Your task to perform on an android device: Open eBay Image 0: 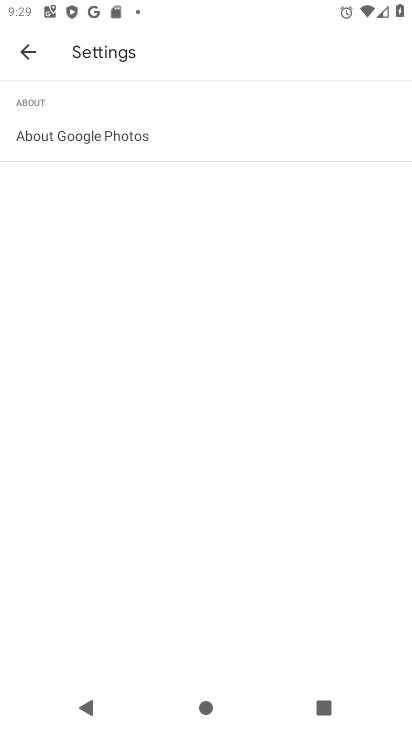
Step 0: press home button
Your task to perform on an android device: Open eBay Image 1: 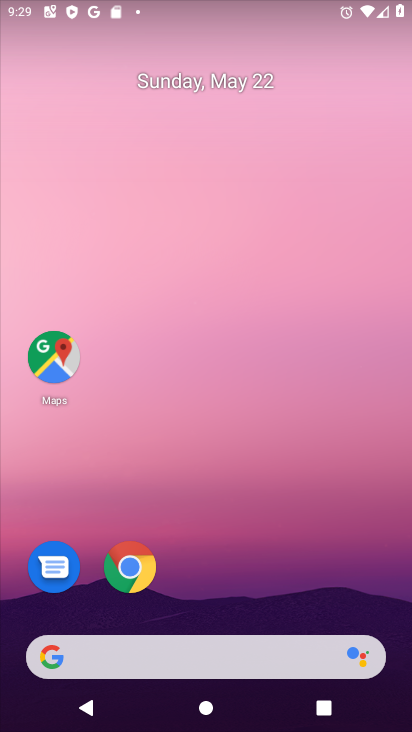
Step 1: click (130, 559)
Your task to perform on an android device: Open eBay Image 2: 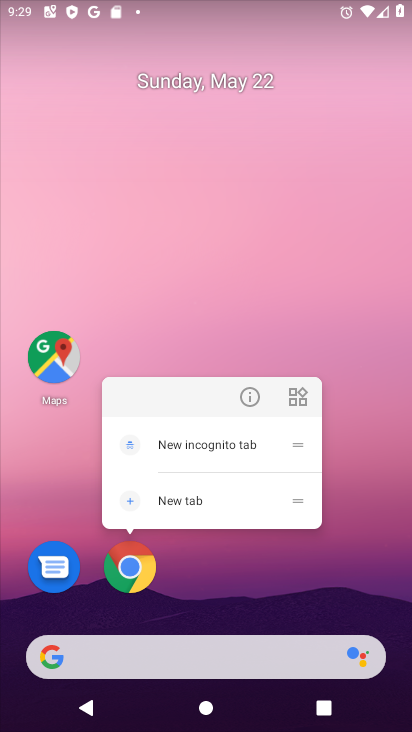
Step 2: click (131, 562)
Your task to perform on an android device: Open eBay Image 3: 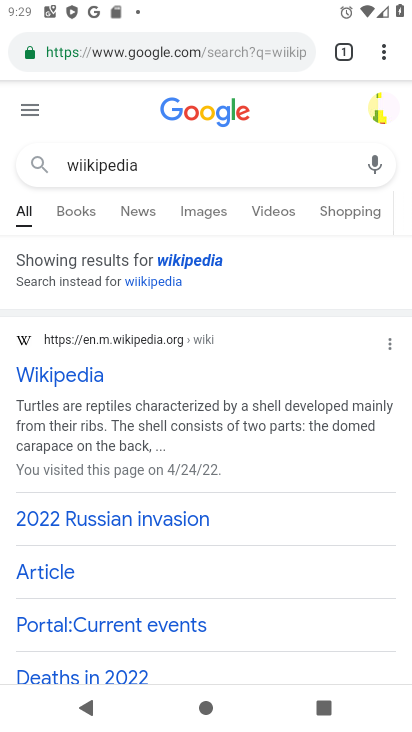
Step 3: click (193, 56)
Your task to perform on an android device: Open eBay Image 4: 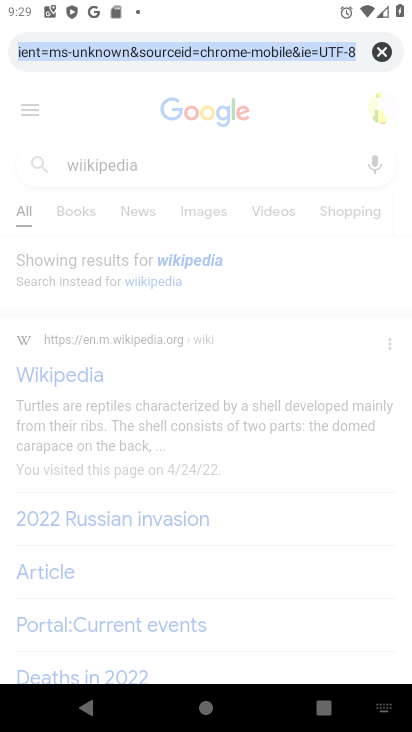
Step 4: type "eBay"
Your task to perform on an android device: Open eBay Image 5: 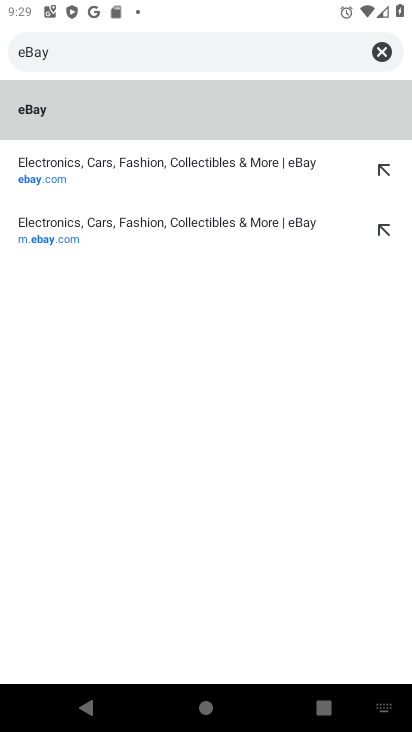
Step 5: click (89, 113)
Your task to perform on an android device: Open eBay Image 6: 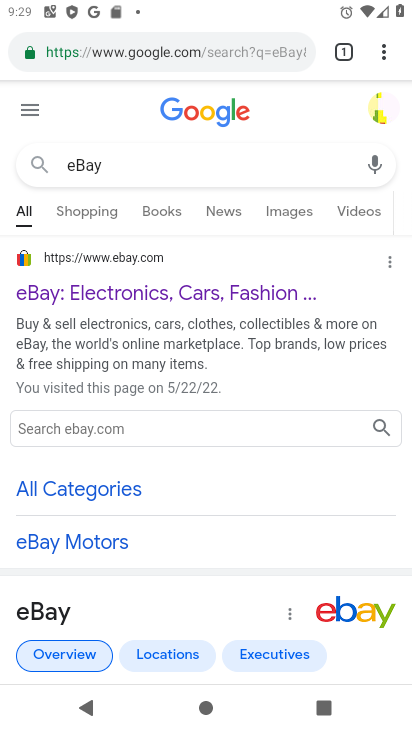
Step 6: task complete